Your task to perform on an android device: set the timer Image 0: 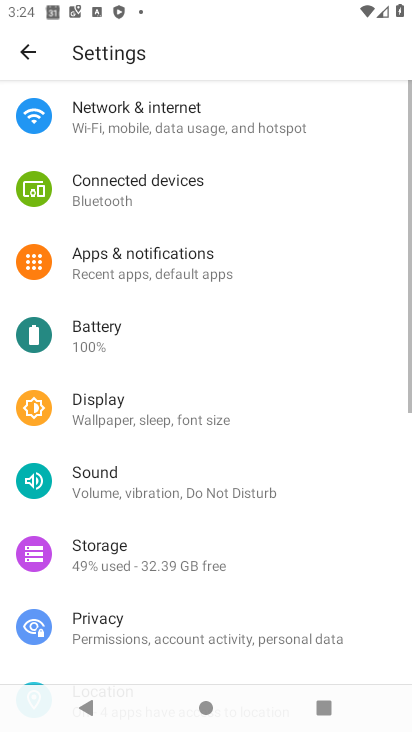
Step 0: press home button
Your task to perform on an android device: set the timer Image 1: 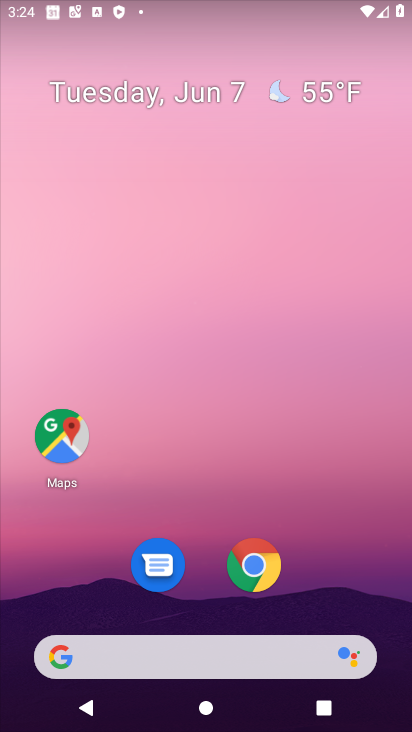
Step 1: drag from (261, 589) to (235, 52)
Your task to perform on an android device: set the timer Image 2: 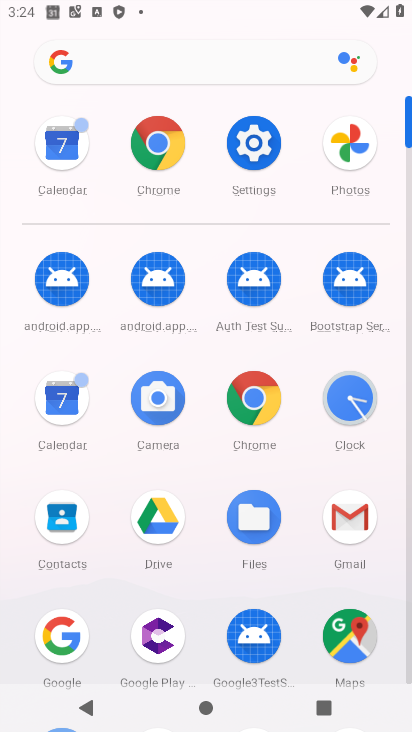
Step 2: click (354, 401)
Your task to perform on an android device: set the timer Image 3: 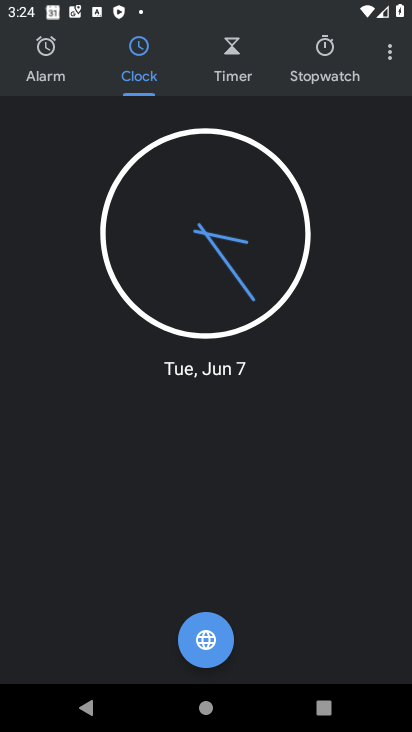
Step 3: click (238, 52)
Your task to perform on an android device: set the timer Image 4: 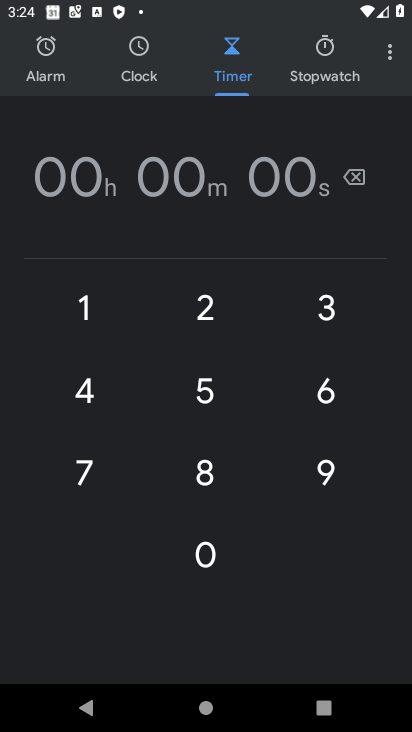
Step 4: click (340, 302)
Your task to perform on an android device: set the timer Image 5: 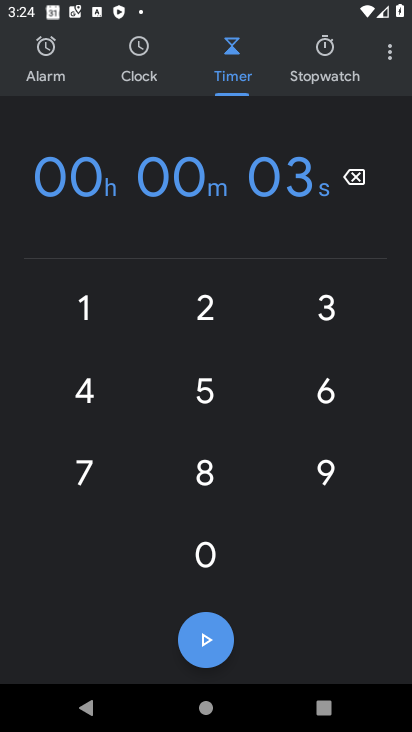
Step 5: click (328, 387)
Your task to perform on an android device: set the timer Image 6: 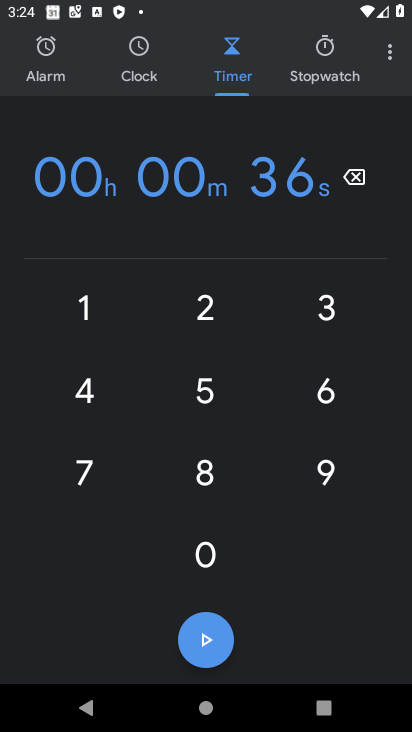
Step 6: click (209, 332)
Your task to perform on an android device: set the timer Image 7: 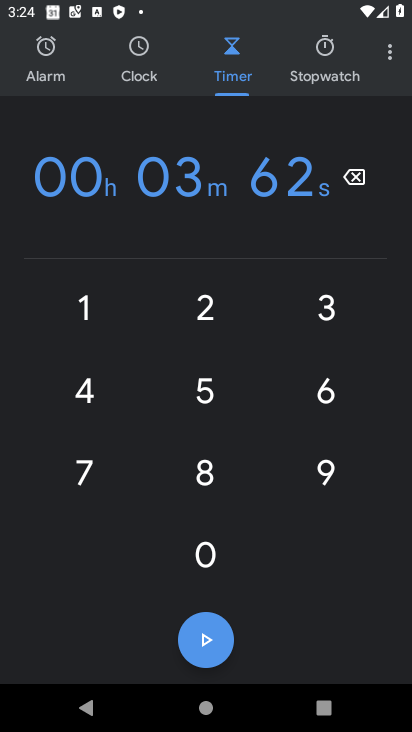
Step 7: click (204, 402)
Your task to perform on an android device: set the timer Image 8: 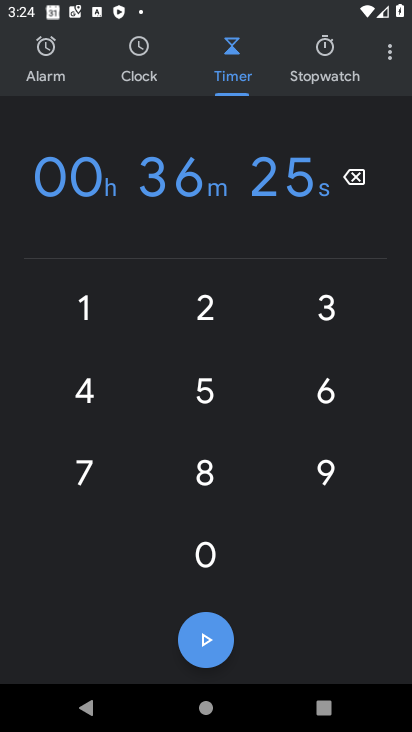
Step 8: click (91, 303)
Your task to perform on an android device: set the timer Image 9: 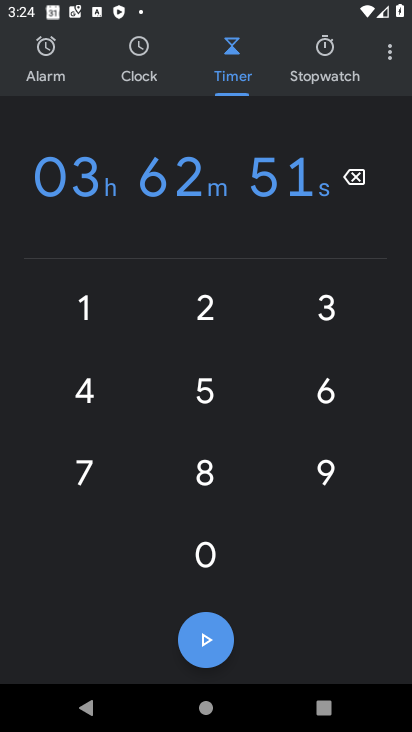
Step 9: click (225, 387)
Your task to perform on an android device: set the timer Image 10: 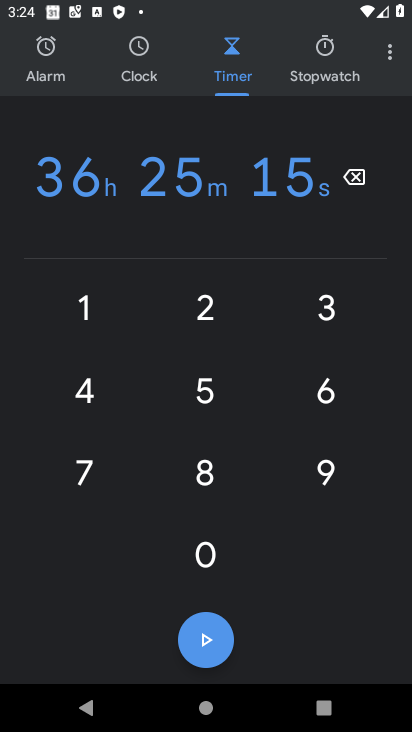
Step 10: click (208, 650)
Your task to perform on an android device: set the timer Image 11: 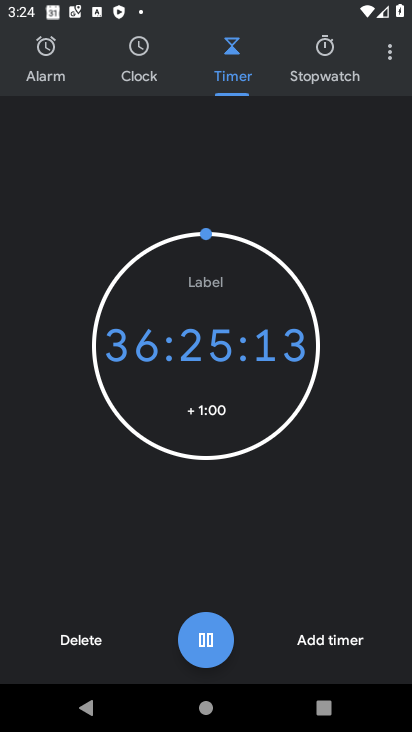
Step 11: task complete